Your task to perform on an android device: Clear all items from cart on costco. Add alienware aurora to the cart on costco, then select checkout. Image 0: 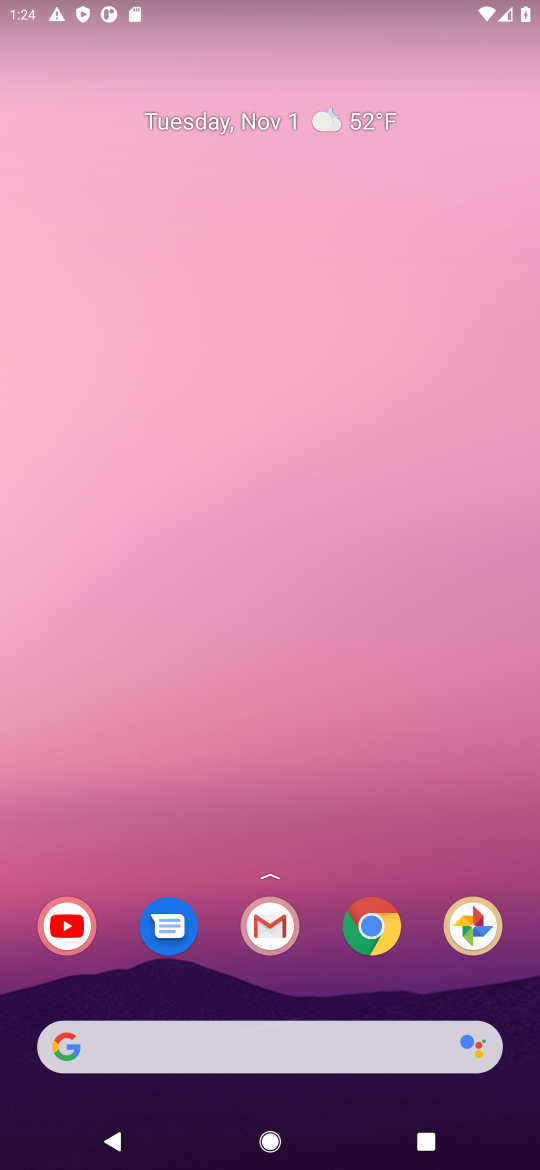
Step 0: click (373, 929)
Your task to perform on an android device: Clear all items from cart on costco. Add alienware aurora to the cart on costco, then select checkout. Image 1: 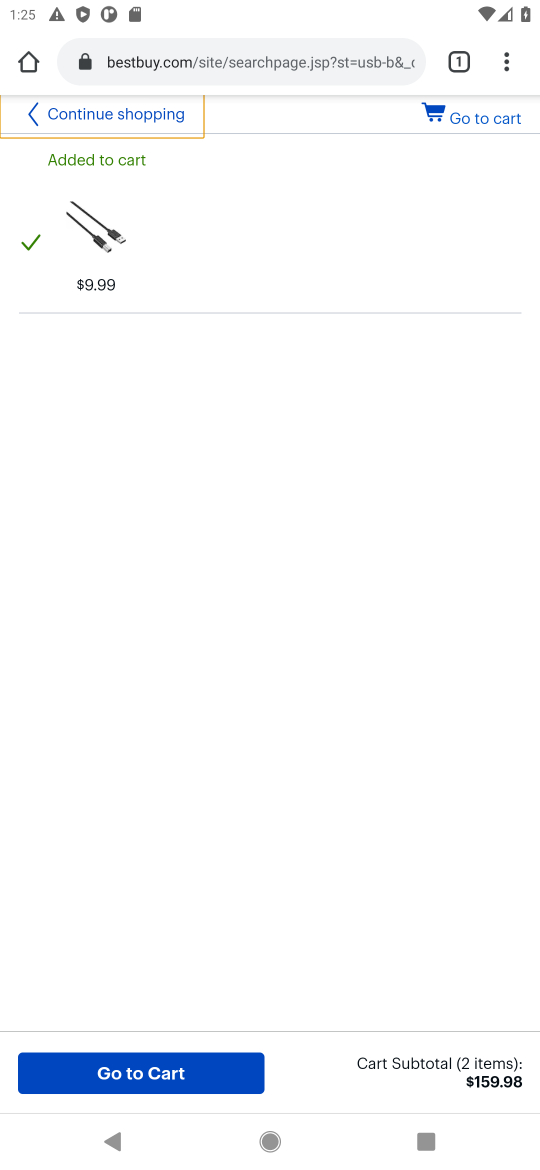
Step 1: click (328, 68)
Your task to perform on an android device: Clear all items from cart on costco. Add alienware aurora to the cart on costco, then select checkout. Image 2: 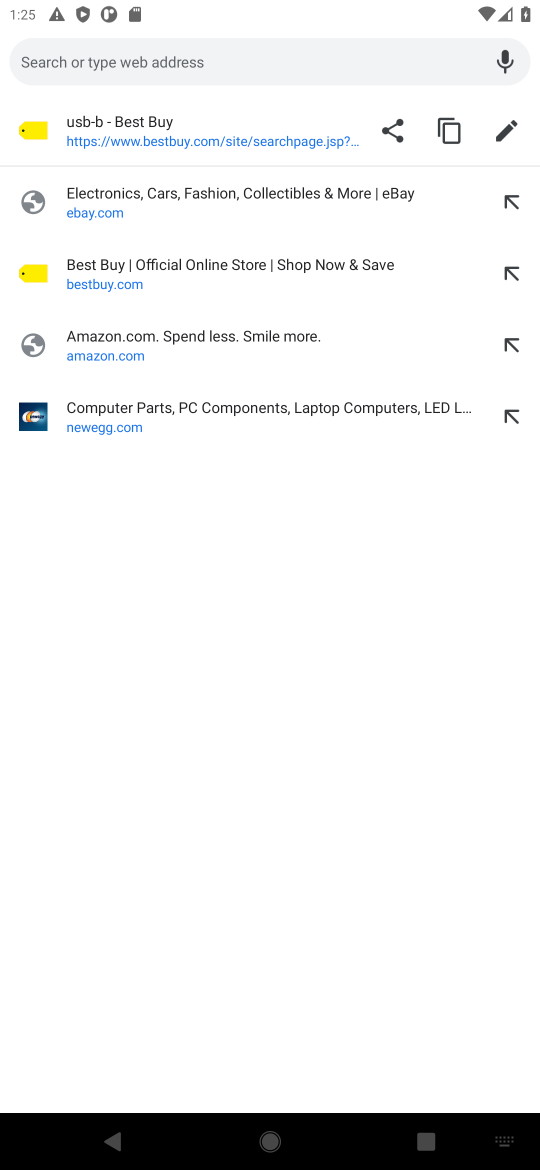
Step 2: type "costco"
Your task to perform on an android device: Clear all items from cart on costco. Add alienware aurora to the cart on costco, then select checkout. Image 3: 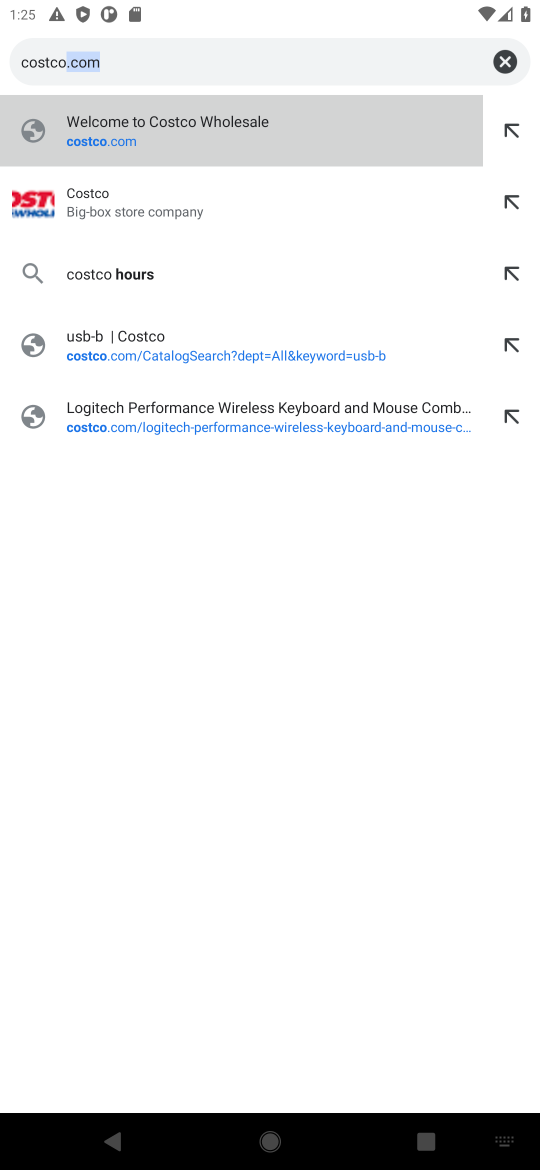
Step 3: click (214, 136)
Your task to perform on an android device: Clear all items from cart on costco. Add alienware aurora to the cart on costco, then select checkout. Image 4: 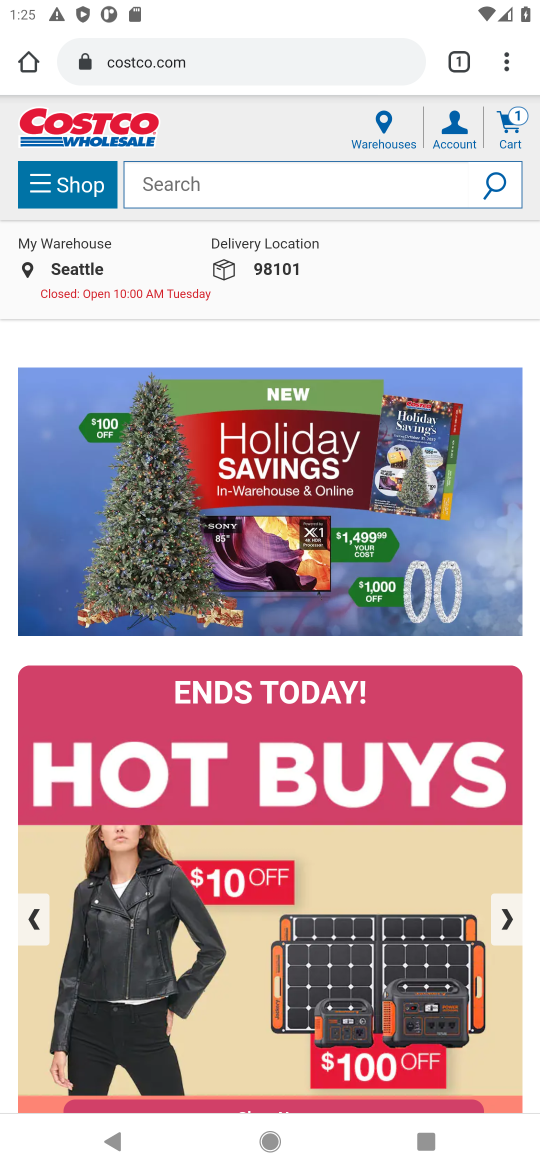
Step 4: click (506, 144)
Your task to perform on an android device: Clear all items from cart on costco. Add alienware aurora to the cart on costco, then select checkout. Image 5: 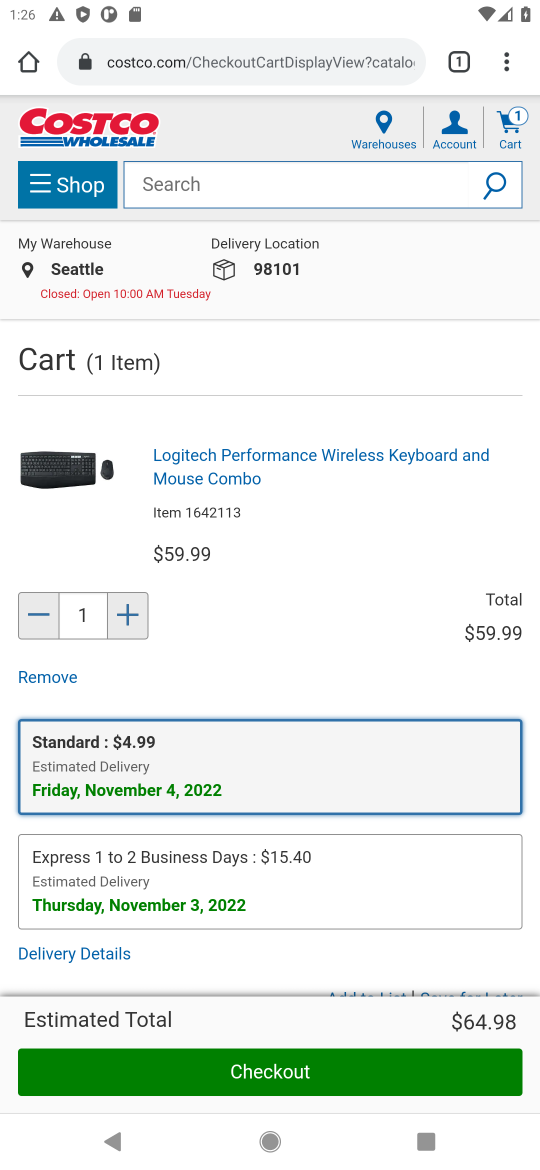
Step 5: click (37, 625)
Your task to perform on an android device: Clear all items from cart on costco. Add alienware aurora to the cart on costco, then select checkout. Image 6: 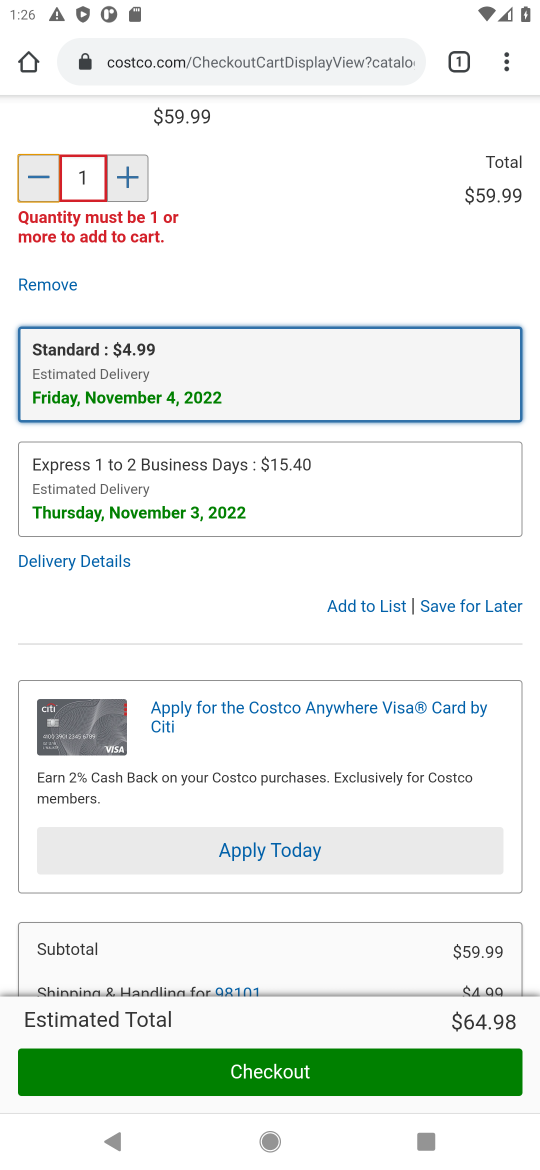
Step 6: click (44, 185)
Your task to perform on an android device: Clear all items from cart on costco. Add alienware aurora to the cart on costco, then select checkout. Image 7: 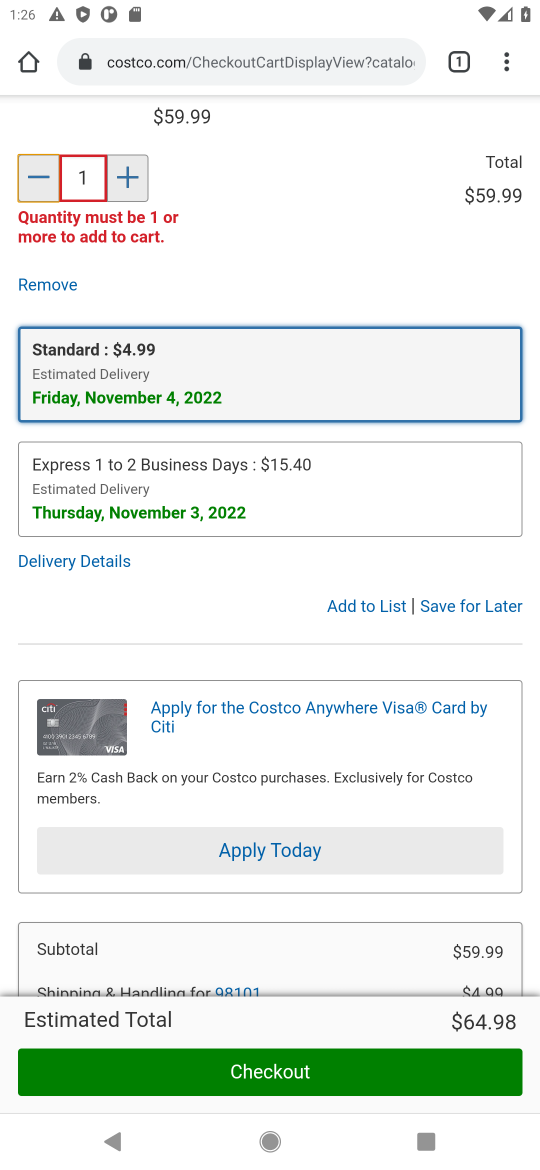
Step 7: drag from (354, 290) to (353, 547)
Your task to perform on an android device: Clear all items from cart on costco. Add alienware aurora to the cart on costco, then select checkout. Image 8: 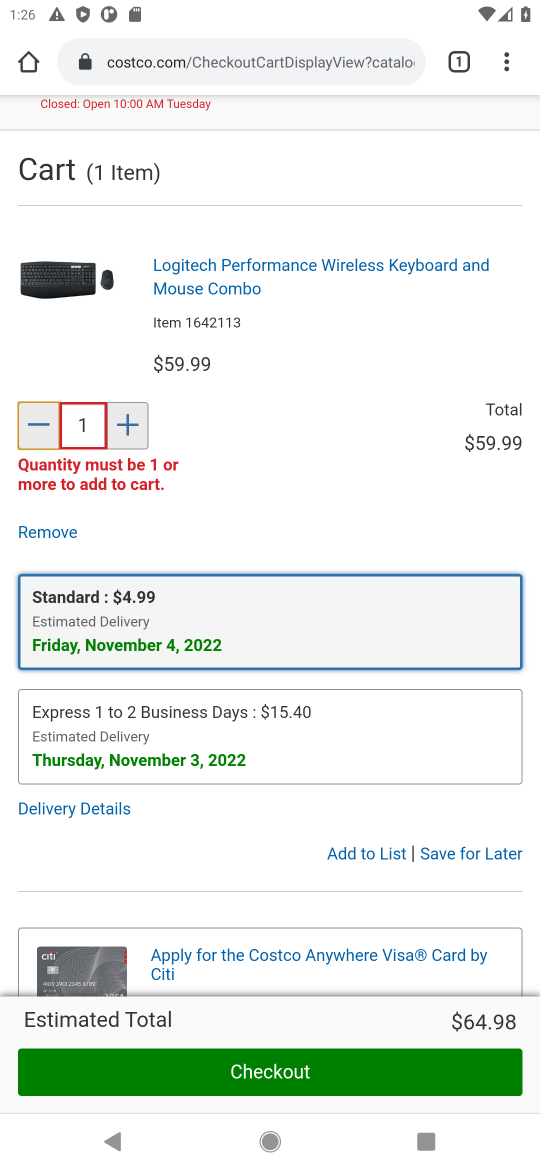
Step 8: click (279, 529)
Your task to perform on an android device: Clear all items from cart on costco. Add alienware aurora to the cart on costco, then select checkout. Image 9: 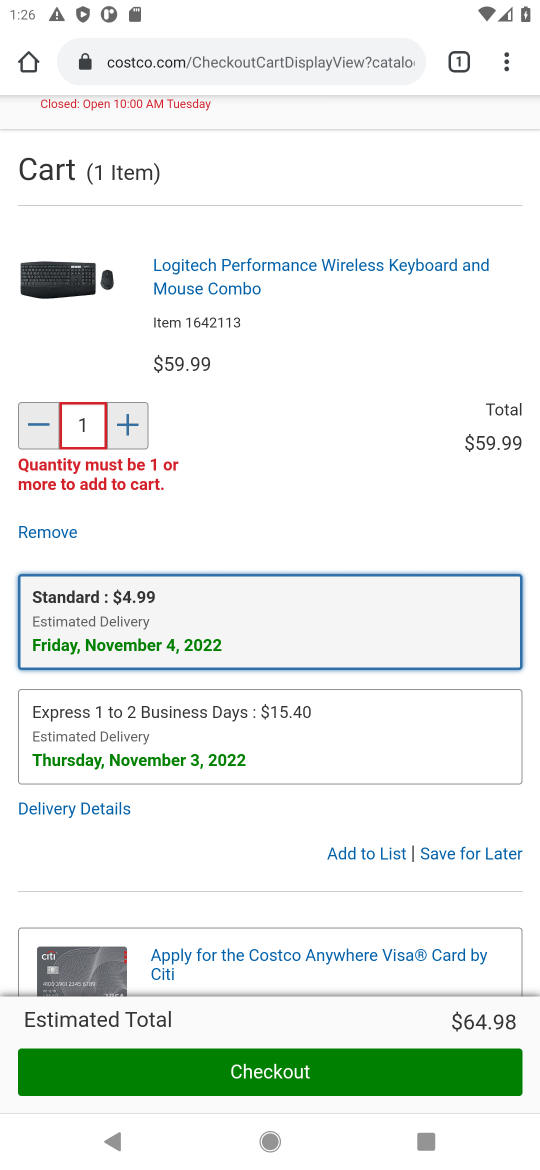
Step 9: click (46, 533)
Your task to perform on an android device: Clear all items from cart on costco. Add alienware aurora to the cart on costco, then select checkout. Image 10: 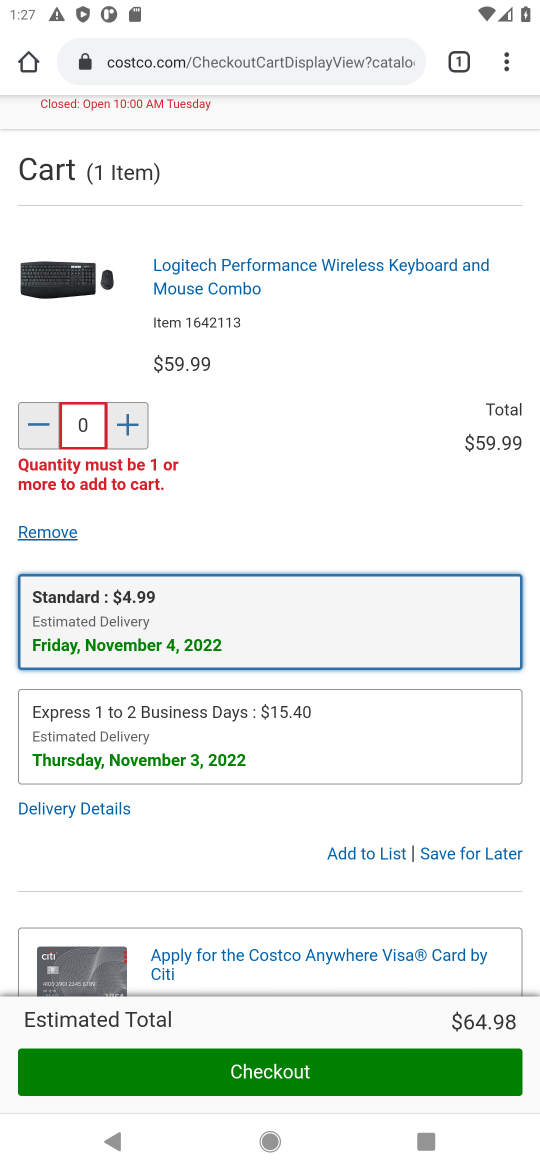
Step 10: click (62, 536)
Your task to perform on an android device: Clear all items from cart on costco. Add alienware aurora to the cart on costco, then select checkout. Image 11: 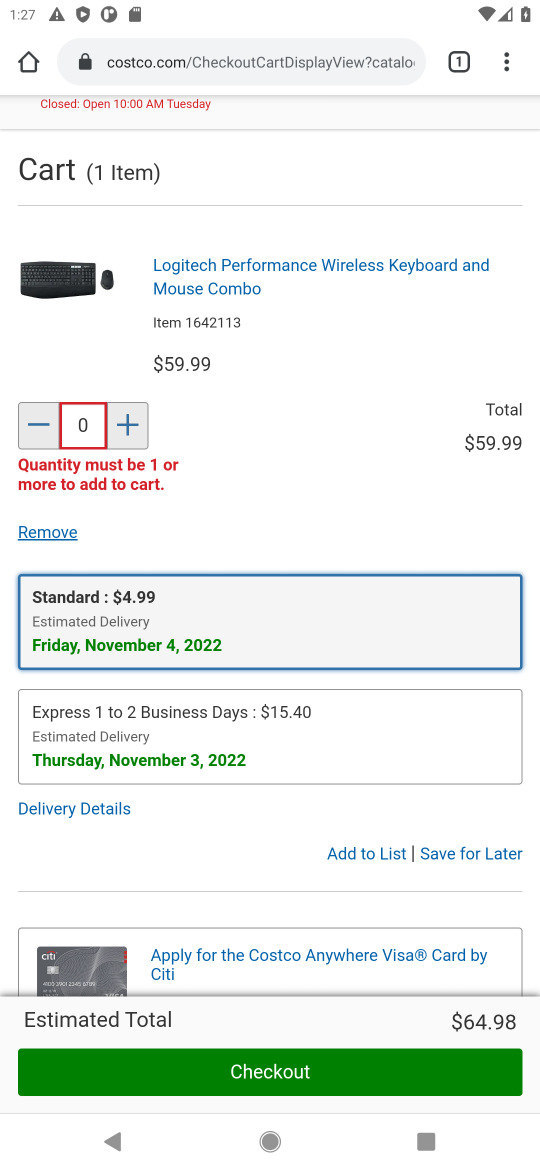
Step 11: drag from (328, 338) to (332, 679)
Your task to perform on an android device: Clear all items from cart on costco. Add alienware aurora to the cart on costco, then select checkout. Image 12: 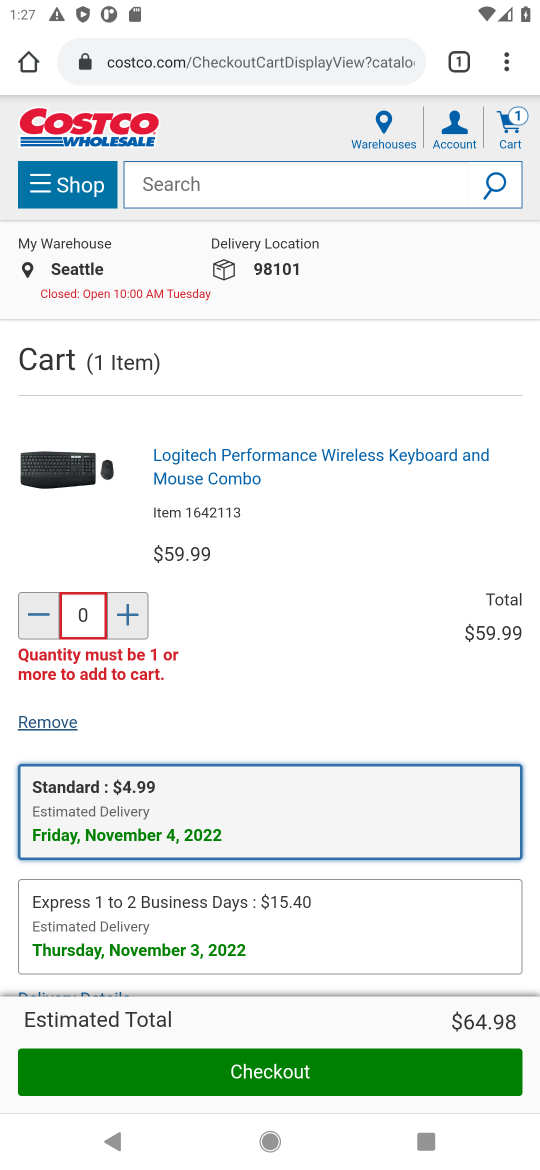
Step 12: click (64, 723)
Your task to perform on an android device: Clear all items from cart on costco. Add alienware aurora to the cart on costco, then select checkout. Image 13: 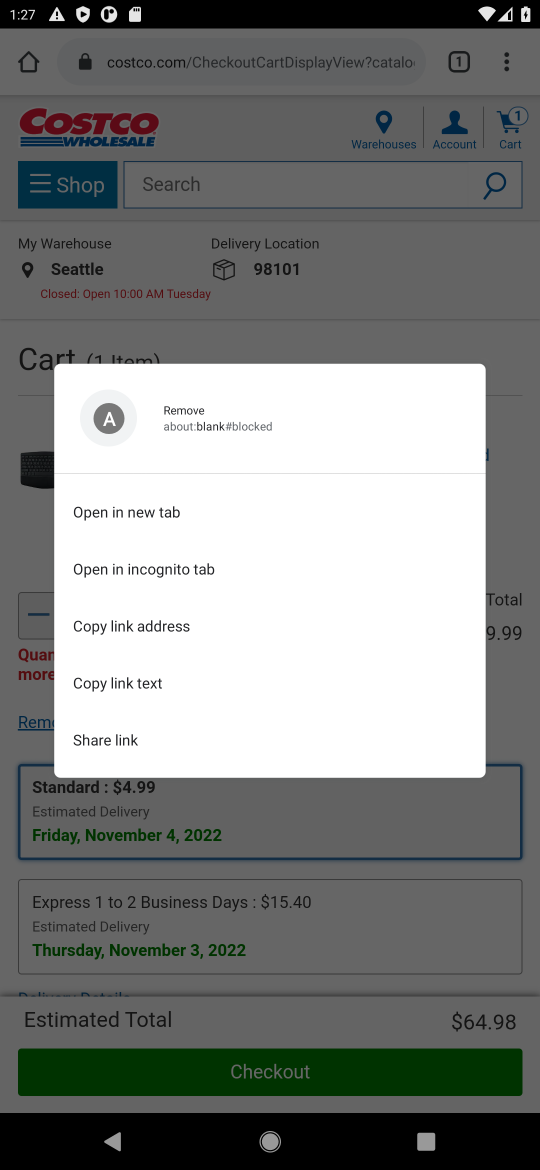
Step 13: click (31, 721)
Your task to perform on an android device: Clear all items from cart on costco. Add alienware aurora to the cart on costco, then select checkout. Image 14: 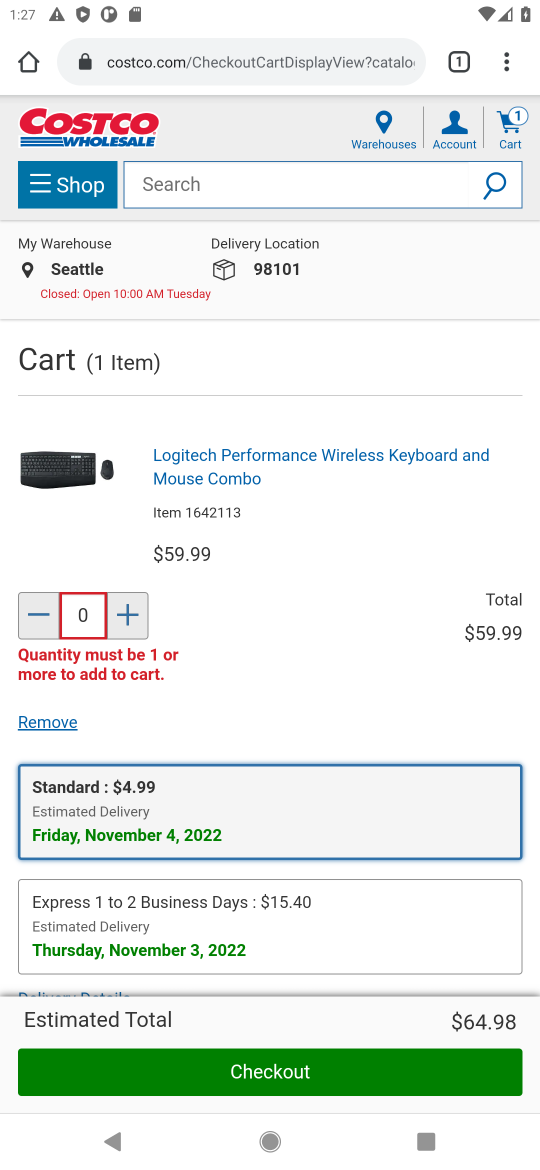
Step 14: click (170, 185)
Your task to perform on an android device: Clear all items from cart on costco. Add alienware aurora to the cart on costco, then select checkout. Image 15: 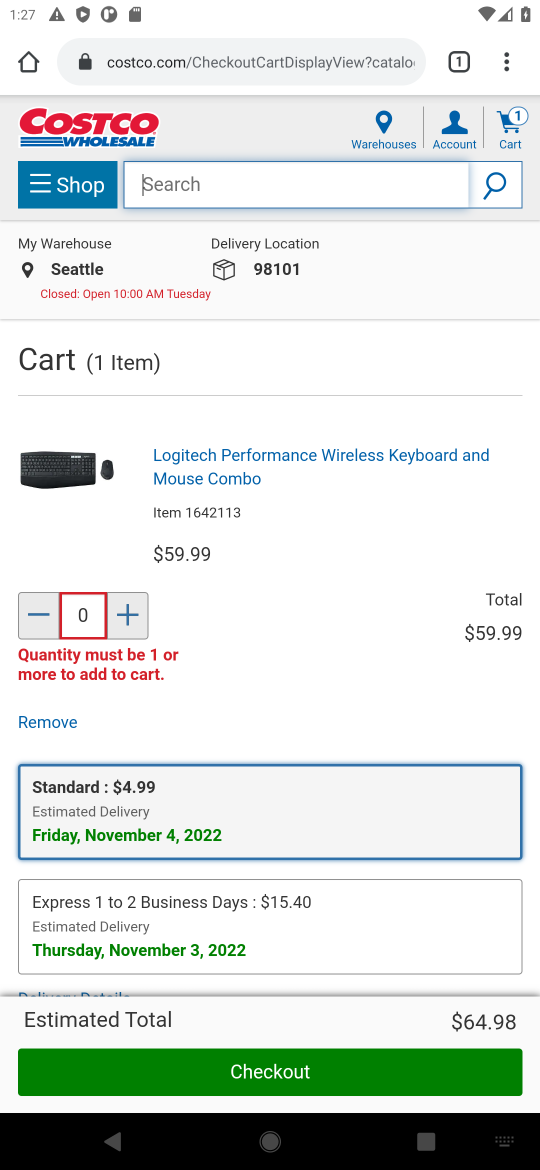
Step 15: type "alienware aurora"
Your task to perform on an android device: Clear all items from cart on costco. Add alienware aurora to the cart on costco, then select checkout. Image 16: 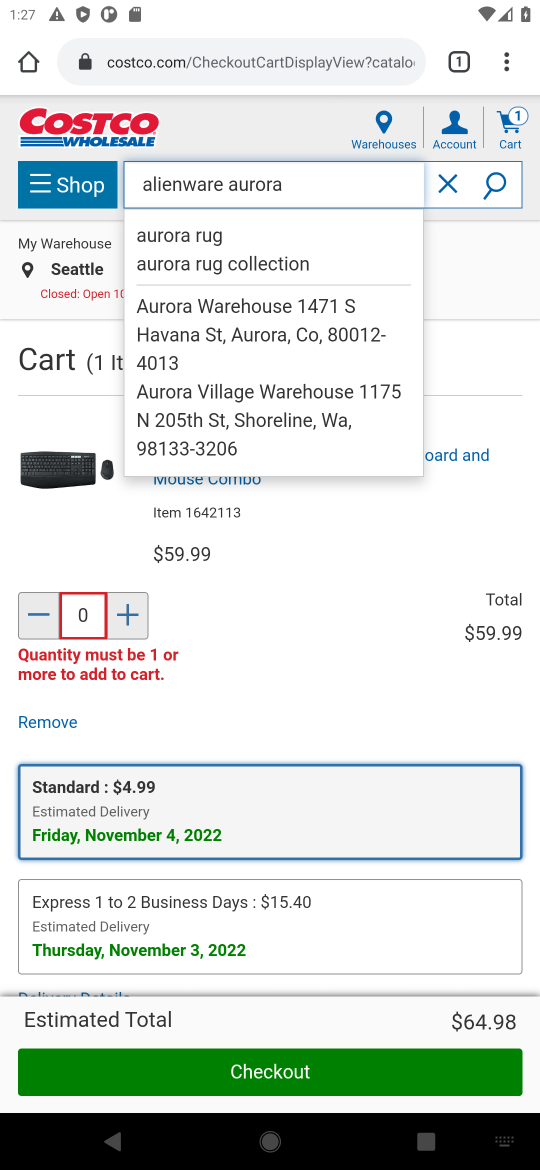
Step 16: click (491, 190)
Your task to perform on an android device: Clear all items from cart on costco. Add alienware aurora to the cart on costco, then select checkout. Image 17: 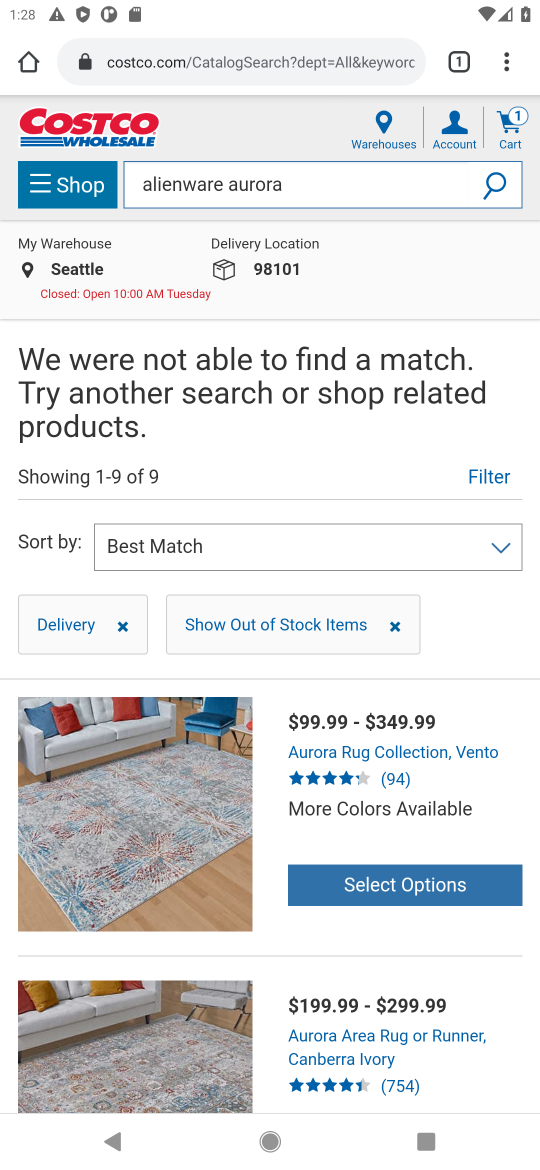
Step 17: task complete